Your task to perform on an android device: Open accessibility settings Image 0: 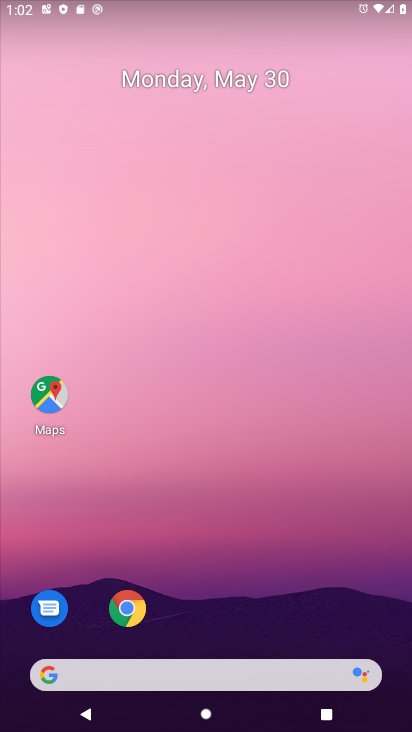
Step 0: drag from (189, 552) to (187, 154)
Your task to perform on an android device: Open accessibility settings Image 1: 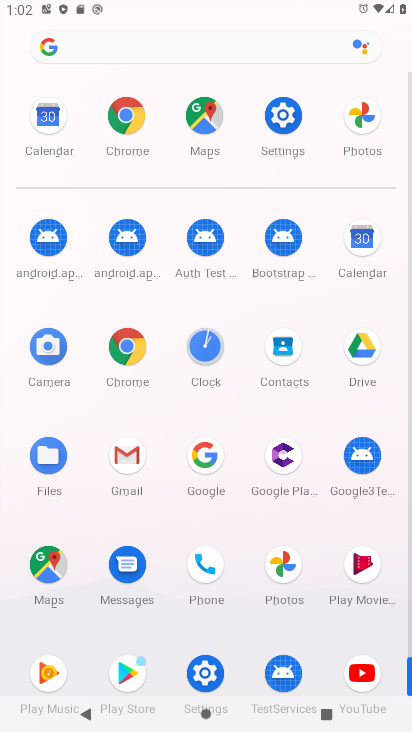
Step 1: click (289, 106)
Your task to perform on an android device: Open accessibility settings Image 2: 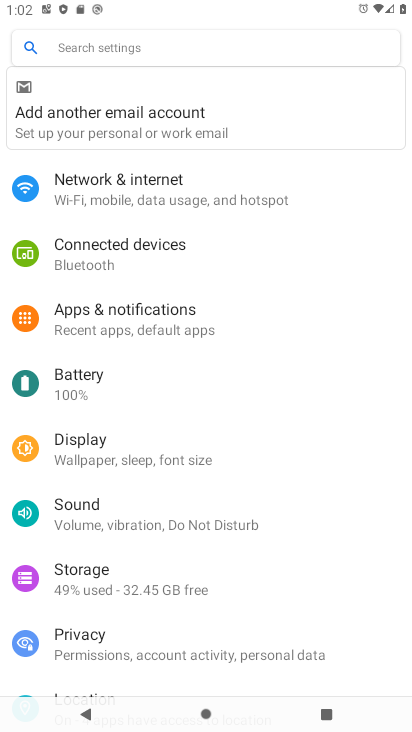
Step 2: drag from (230, 507) to (214, 194)
Your task to perform on an android device: Open accessibility settings Image 3: 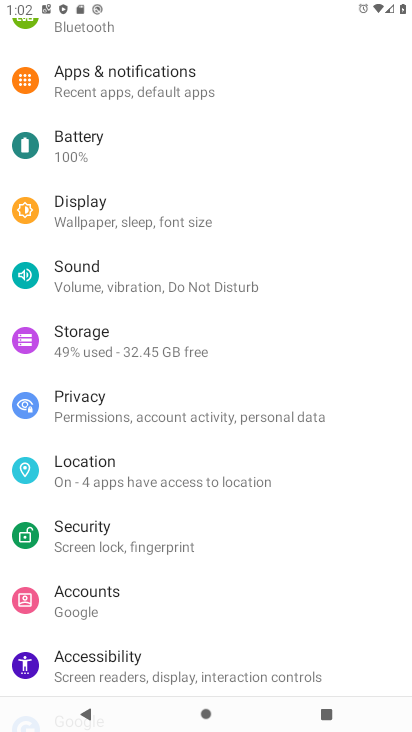
Step 3: click (130, 656)
Your task to perform on an android device: Open accessibility settings Image 4: 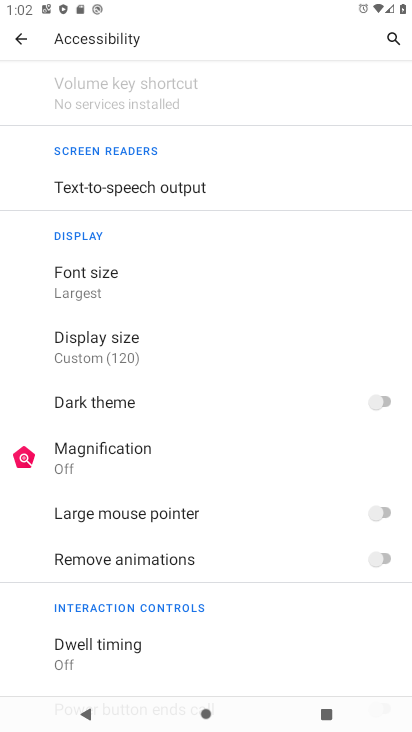
Step 4: task complete